Your task to perform on an android device: change the clock display to digital Image 0: 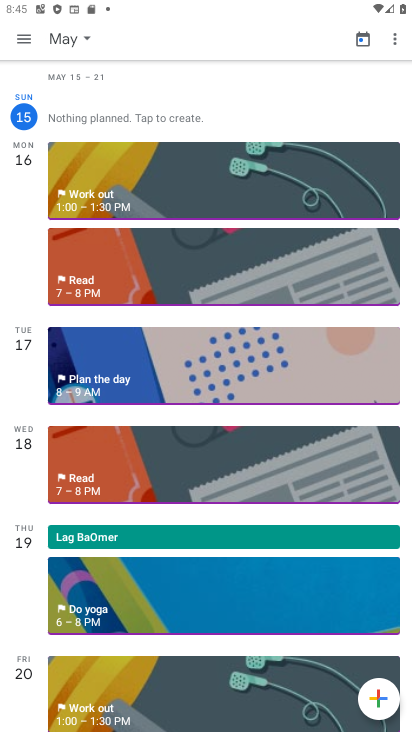
Step 0: press home button
Your task to perform on an android device: change the clock display to digital Image 1: 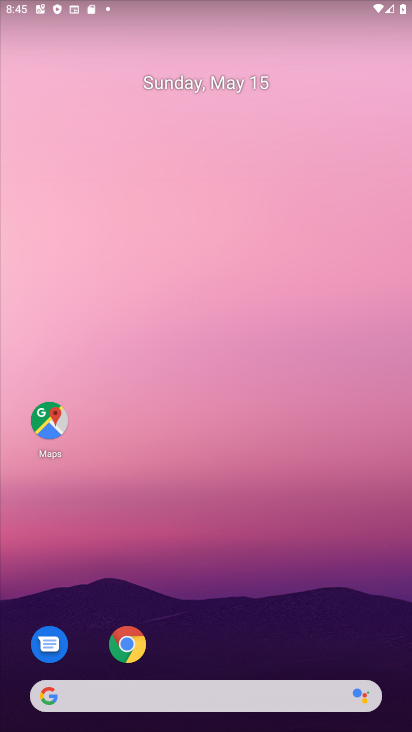
Step 1: drag from (214, 676) to (177, 1)
Your task to perform on an android device: change the clock display to digital Image 2: 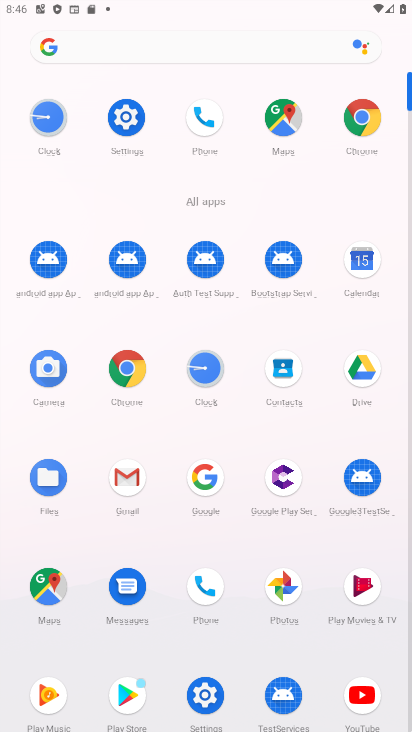
Step 2: click (212, 387)
Your task to perform on an android device: change the clock display to digital Image 3: 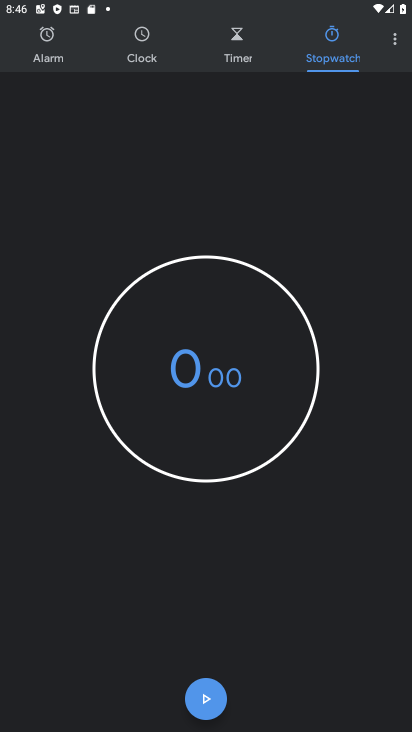
Step 3: click (389, 39)
Your task to perform on an android device: change the clock display to digital Image 4: 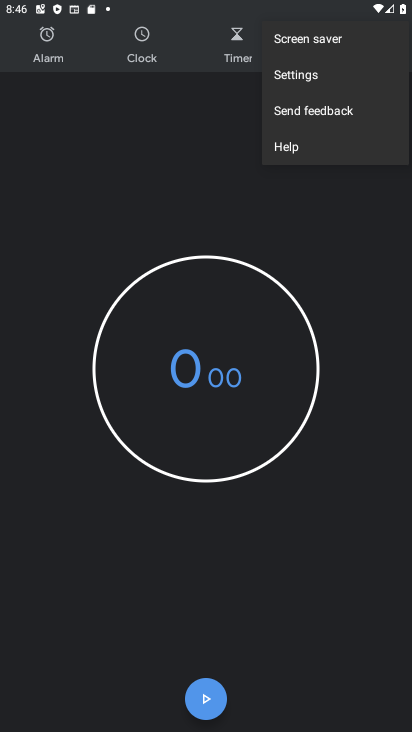
Step 4: click (302, 76)
Your task to perform on an android device: change the clock display to digital Image 5: 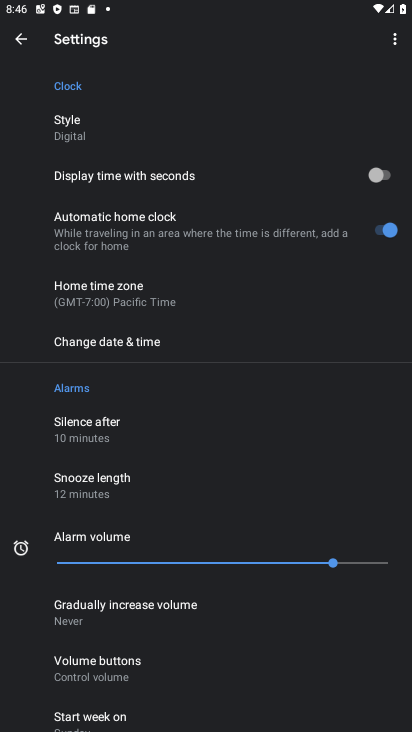
Step 5: click (101, 135)
Your task to perform on an android device: change the clock display to digital Image 6: 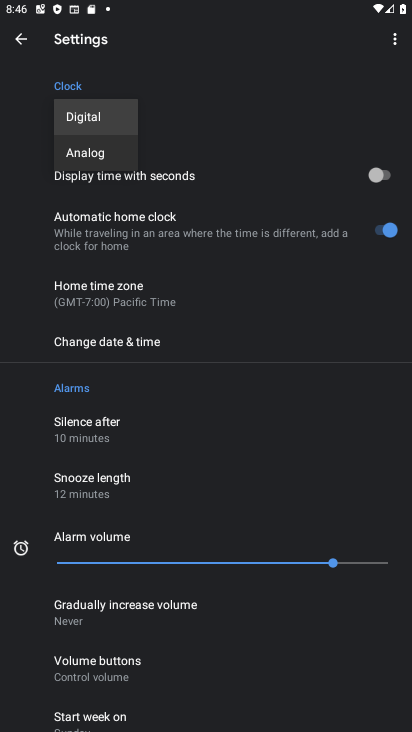
Step 6: click (95, 104)
Your task to perform on an android device: change the clock display to digital Image 7: 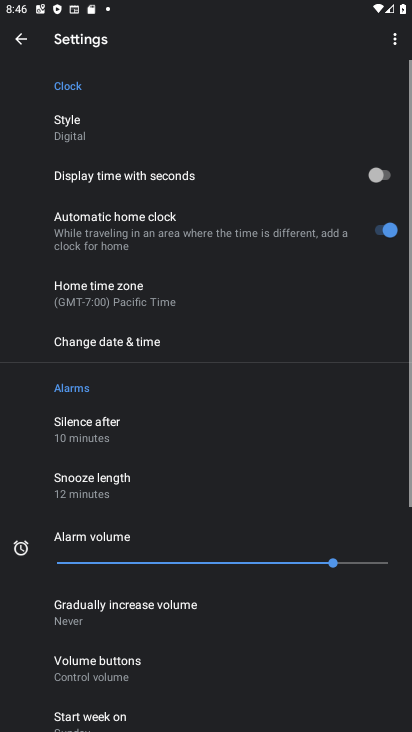
Step 7: task complete